Your task to perform on an android device: Is it going to rain this weekend? Image 0: 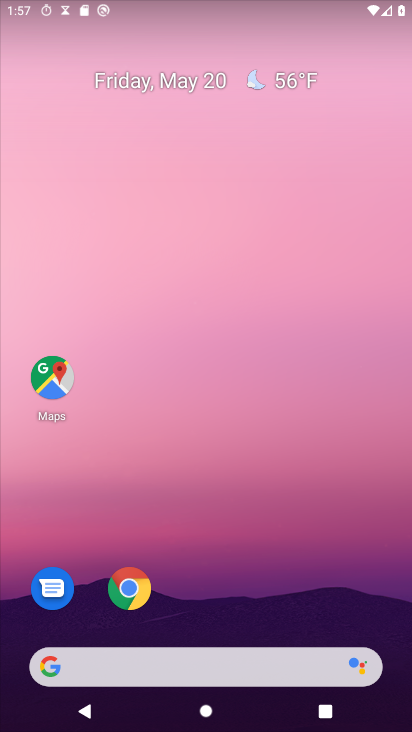
Step 0: click (106, 673)
Your task to perform on an android device: Is it going to rain this weekend? Image 1: 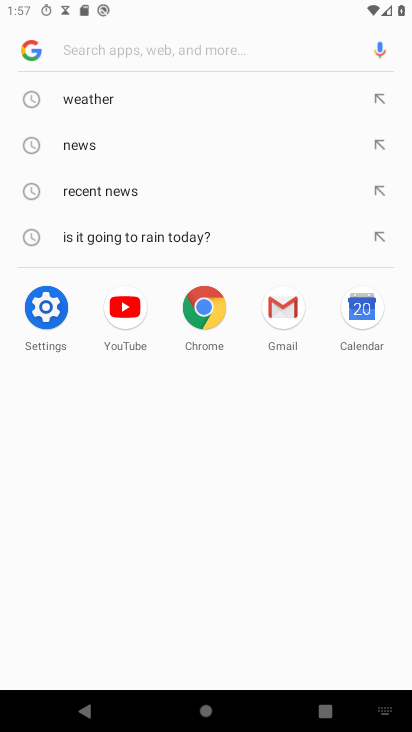
Step 1: click (123, 107)
Your task to perform on an android device: Is it going to rain this weekend? Image 2: 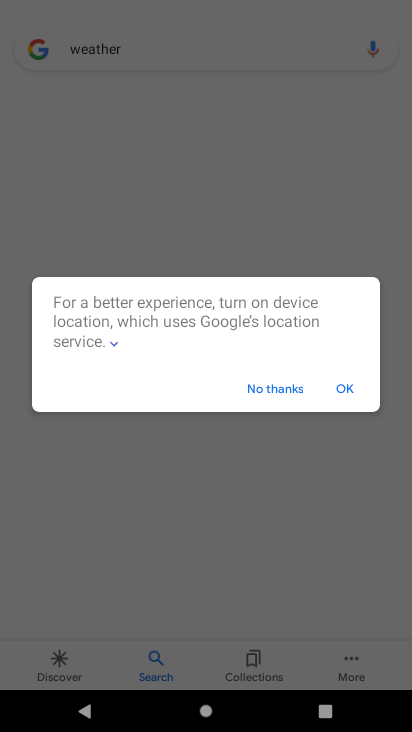
Step 2: click (269, 385)
Your task to perform on an android device: Is it going to rain this weekend? Image 3: 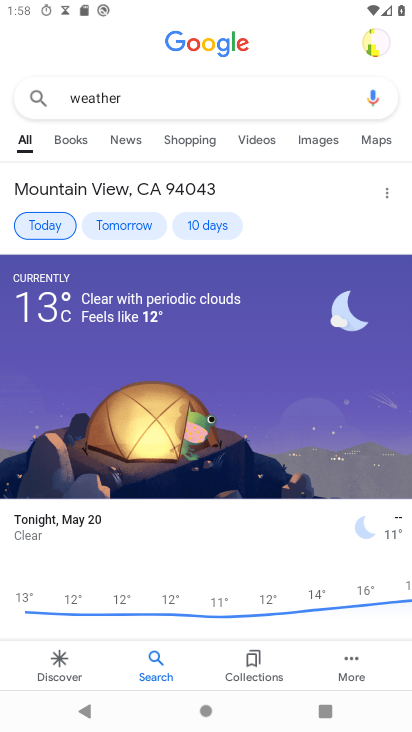
Step 3: click (183, 228)
Your task to perform on an android device: Is it going to rain this weekend? Image 4: 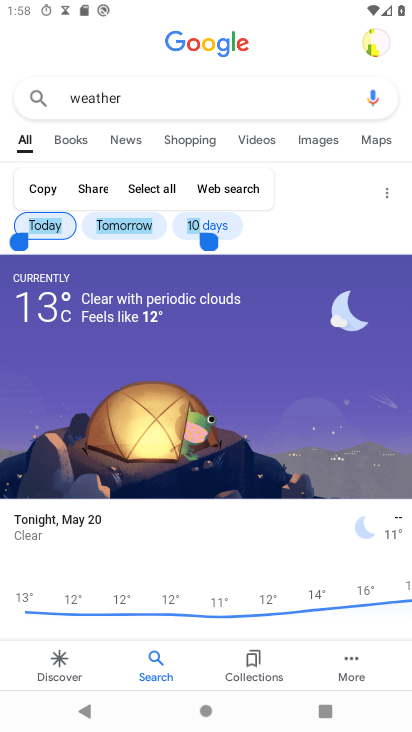
Step 4: task complete